Your task to perform on an android device: open sync settings in chrome Image 0: 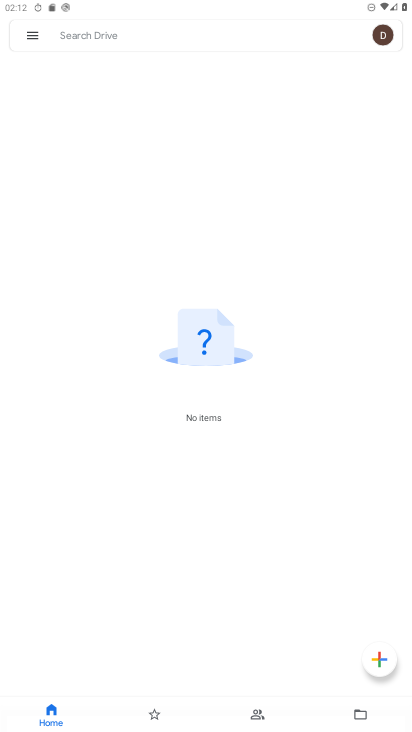
Step 0: press home button
Your task to perform on an android device: open sync settings in chrome Image 1: 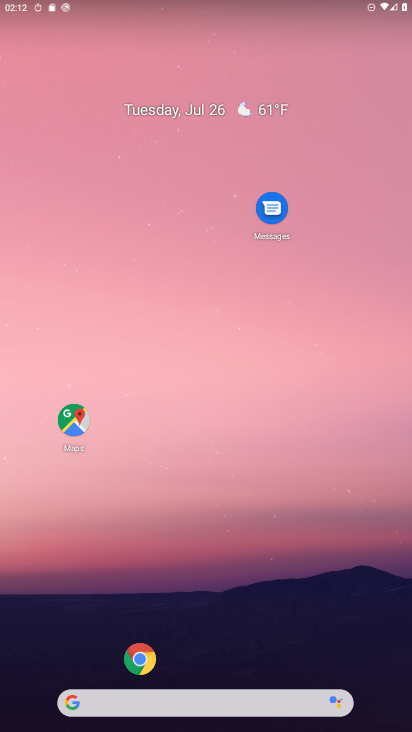
Step 1: drag from (61, 623) to (246, 123)
Your task to perform on an android device: open sync settings in chrome Image 2: 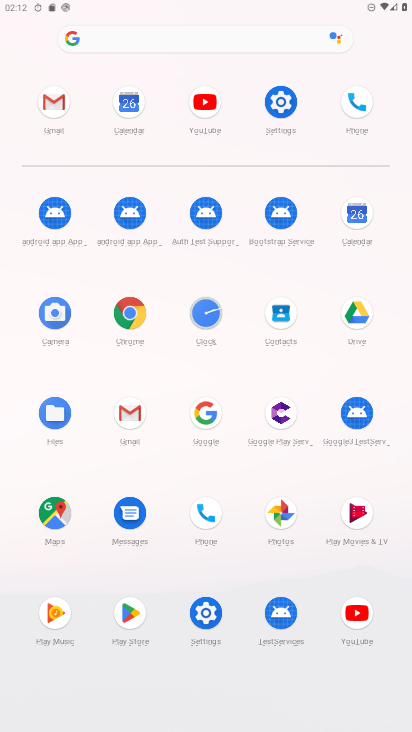
Step 2: click (199, 612)
Your task to perform on an android device: open sync settings in chrome Image 3: 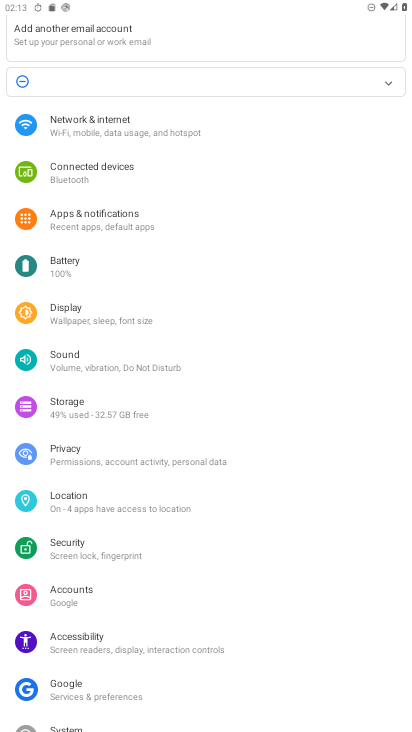
Step 3: press home button
Your task to perform on an android device: open sync settings in chrome Image 4: 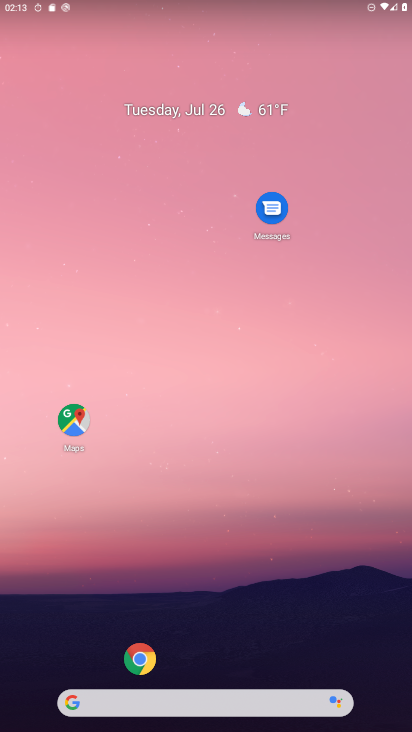
Step 4: click (136, 663)
Your task to perform on an android device: open sync settings in chrome Image 5: 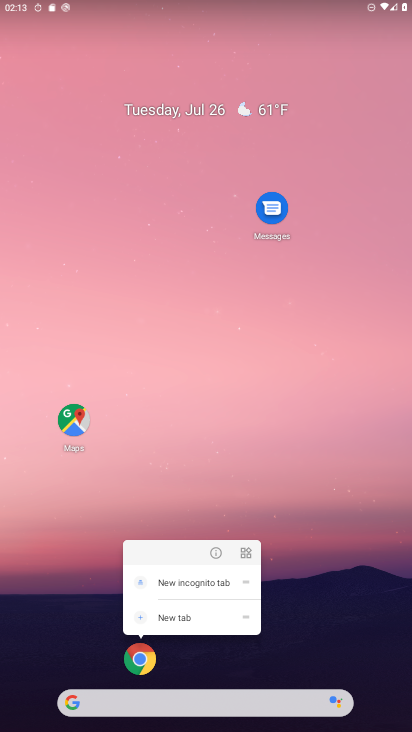
Step 5: click (142, 659)
Your task to perform on an android device: open sync settings in chrome Image 6: 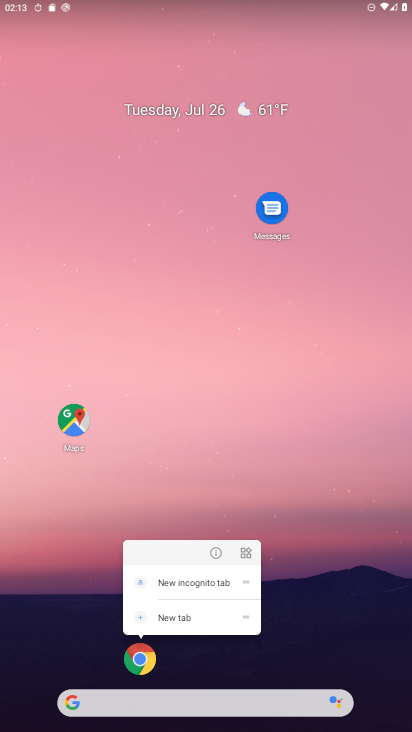
Step 6: task complete